Your task to perform on an android device: Show me productivity apps on the Play Store Image 0: 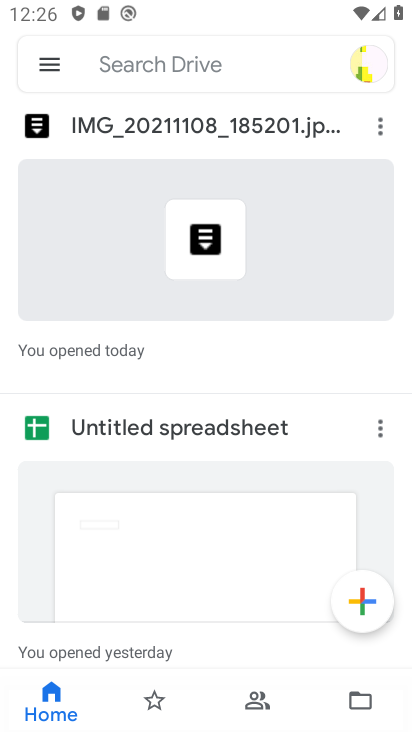
Step 0: press home button
Your task to perform on an android device: Show me productivity apps on the Play Store Image 1: 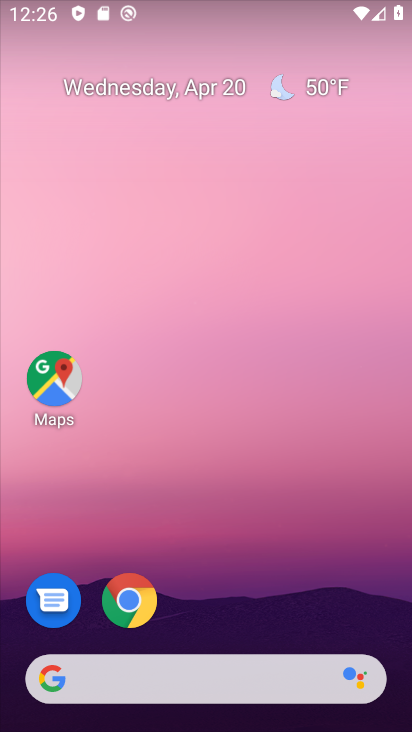
Step 1: drag from (282, 453) to (307, 158)
Your task to perform on an android device: Show me productivity apps on the Play Store Image 2: 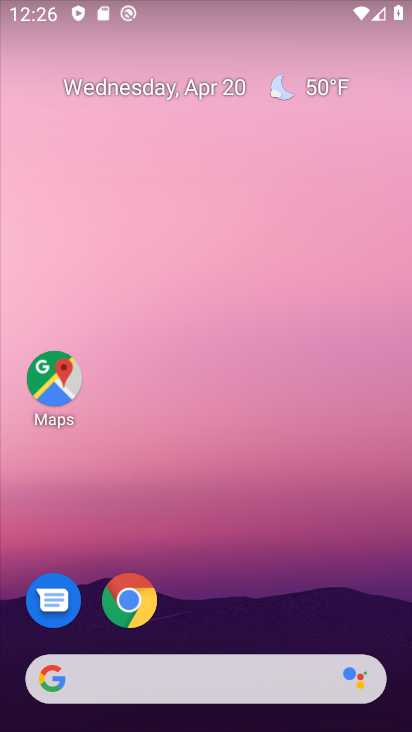
Step 2: drag from (213, 633) to (260, 80)
Your task to perform on an android device: Show me productivity apps on the Play Store Image 3: 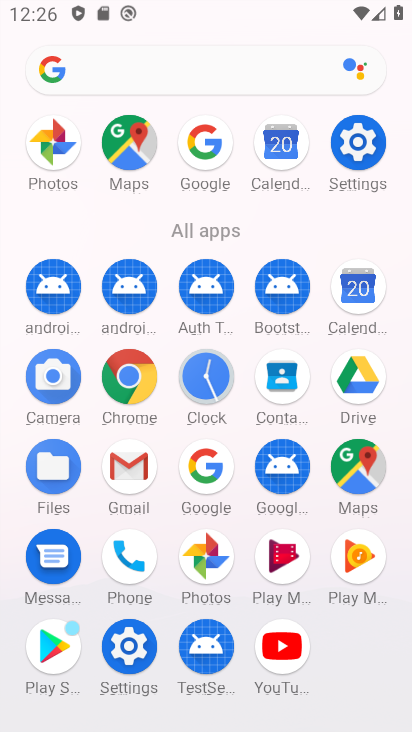
Step 3: click (53, 640)
Your task to perform on an android device: Show me productivity apps on the Play Store Image 4: 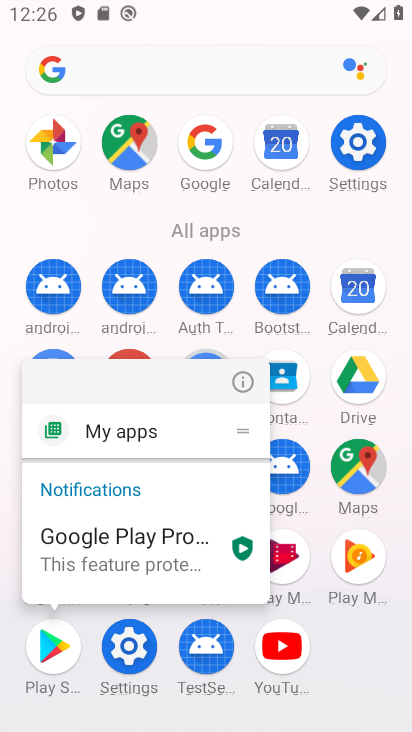
Step 4: click (354, 661)
Your task to perform on an android device: Show me productivity apps on the Play Store Image 5: 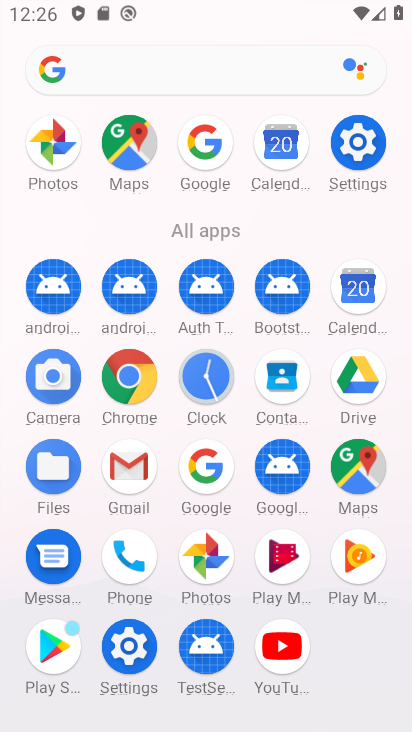
Step 5: click (57, 671)
Your task to perform on an android device: Show me productivity apps on the Play Store Image 6: 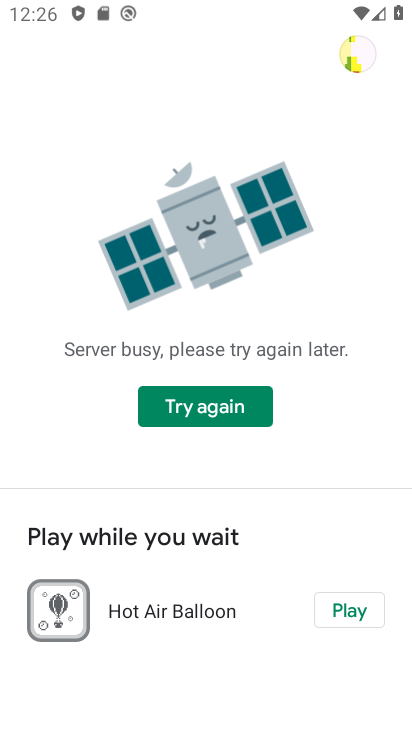
Step 6: click (215, 429)
Your task to perform on an android device: Show me productivity apps on the Play Store Image 7: 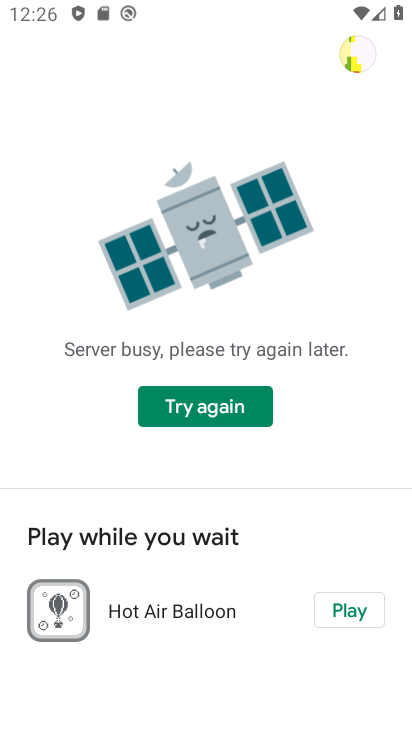
Step 7: click (224, 418)
Your task to perform on an android device: Show me productivity apps on the Play Store Image 8: 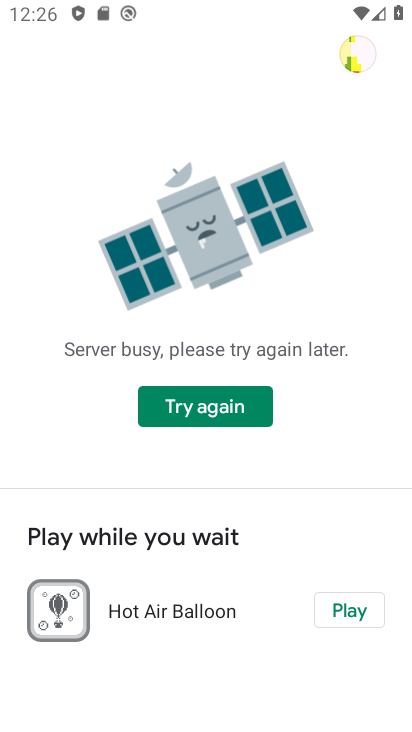
Step 8: task complete